Your task to perform on an android device: toggle pop-ups in chrome Image 0: 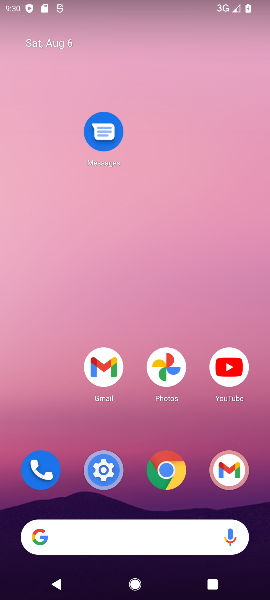
Step 0: drag from (141, 539) to (173, 53)
Your task to perform on an android device: toggle pop-ups in chrome Image 1: 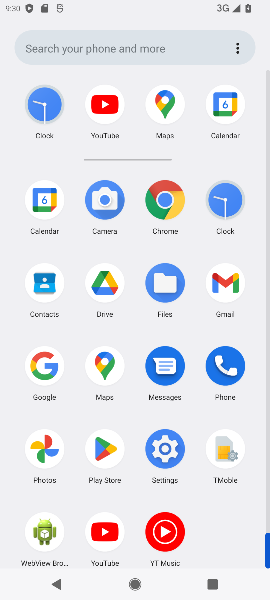
Step 1: click (173, 210)
Your task to perform on an android device: toggle pop-ups in chrome Image 2: 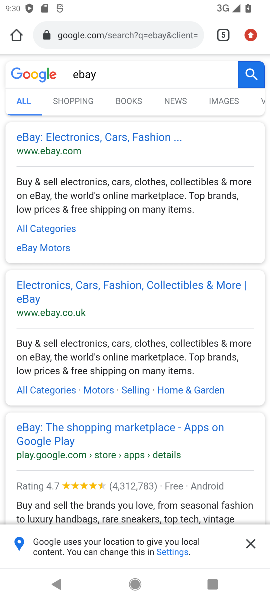
Step 2: click (247, 37)
Your task to perform on an android device: toggle pop-ups in chrome Image 3: 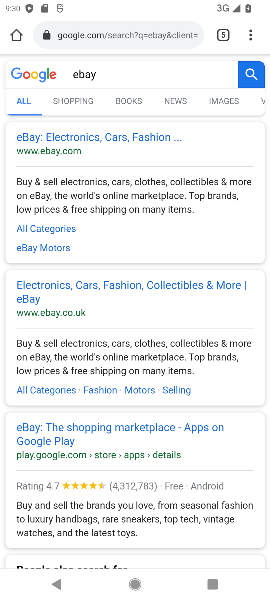
Step 3: click (254, 40)
Your task to perform on an android device: toggle pop-ups in chrome Image 4: 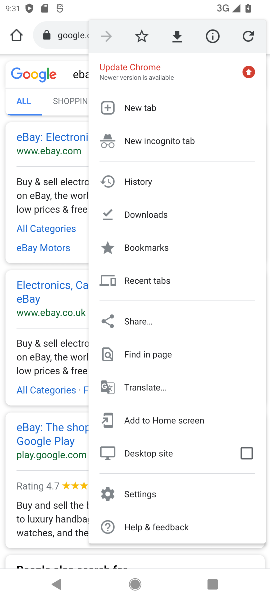
Step 4: click (140, 491)
Your task to perform on an android device: toggle pop-ups in chrome Image 5: 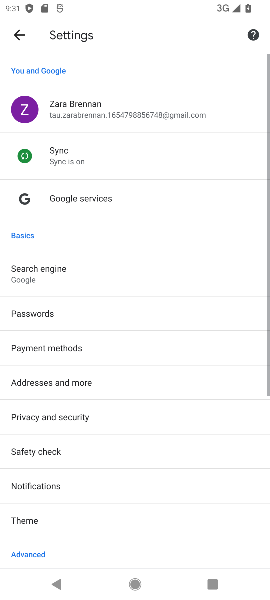
Step 5: drag from (95, 430) to (110, 170)
Your task to perform on an android device: toggle pop-ups in chrome Image 6: 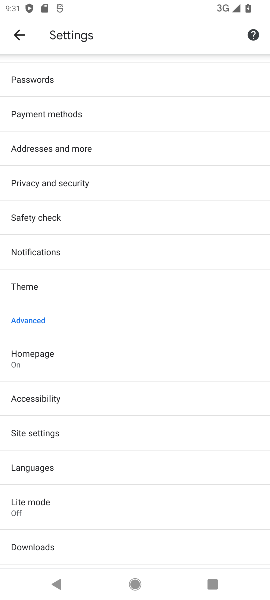
Step 6: click (41, 427)
Your task to perform on an android device: toggle pop-ups in chrome Image 7: 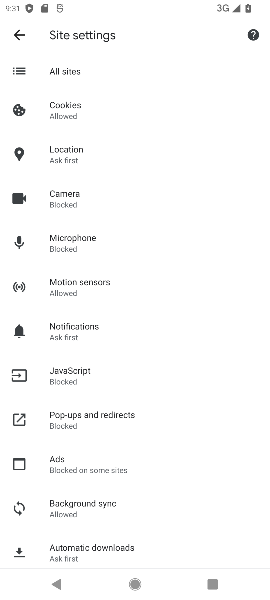
Step 7: click (102, 418)
Your task to perform on an android device: toggle pop-ups in chrome Image 8: 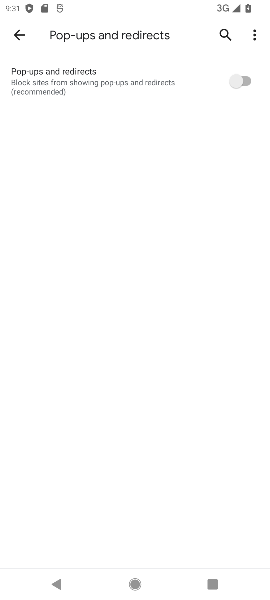
Step 8: click (211, 78)
Your task to perform on an android device: toggle pop-ups in chrome Image 9: 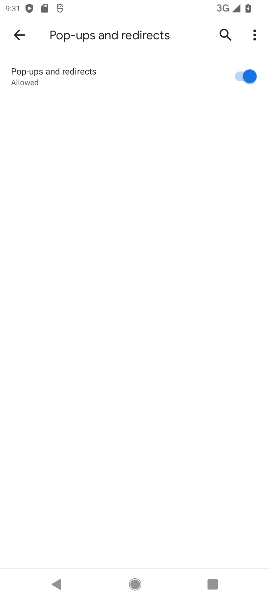
Step 9: click (239, 73)
Your task to perform on an android device: toggle pop-ups in chrome Image 10: 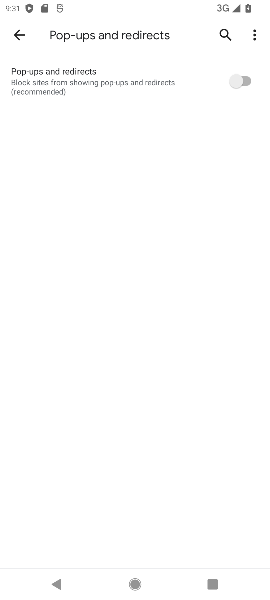
Step 10: task complete